Your task to perform on an android device: allow cookies in the chrome app Image 0: 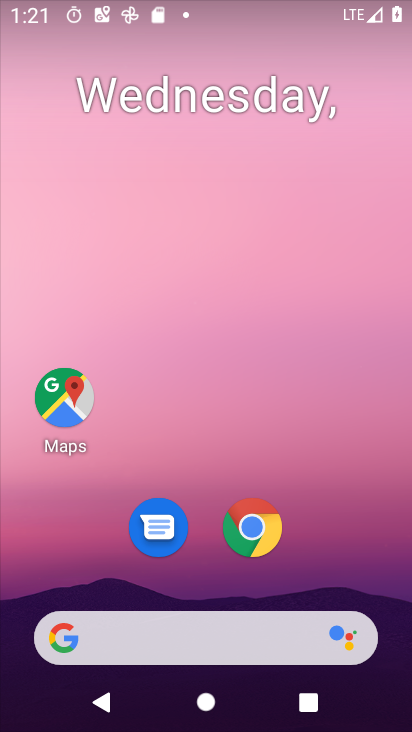
Step 0: drag from (295, 627) to (384, 0)
Your task to perform on an android device: allow cookies in the chrome app Image 1: 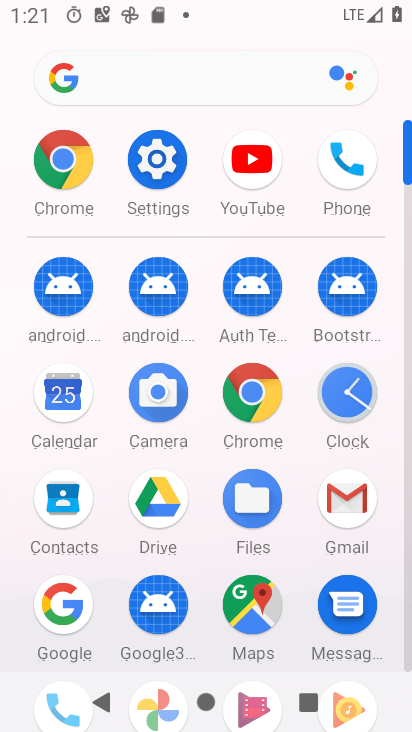
Step 1: click (266, 391)
Your task to perform on an android device: allow cookies in the chrome app Image 2: 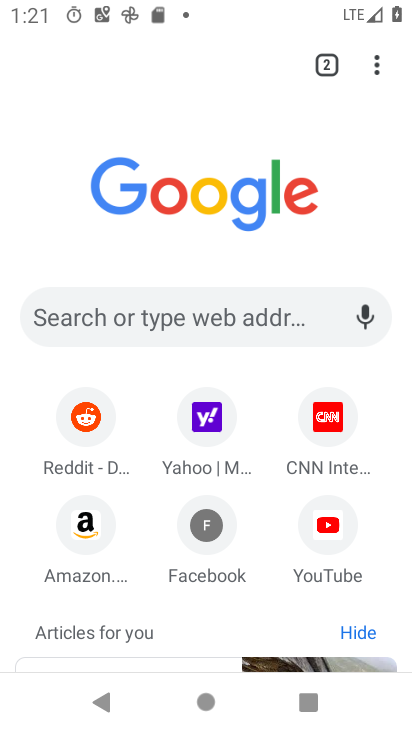
Step 2: drag from (377, 68) to (206, 556)
Your task to perform on an android device: allow cookies in the chrome app Image 3: 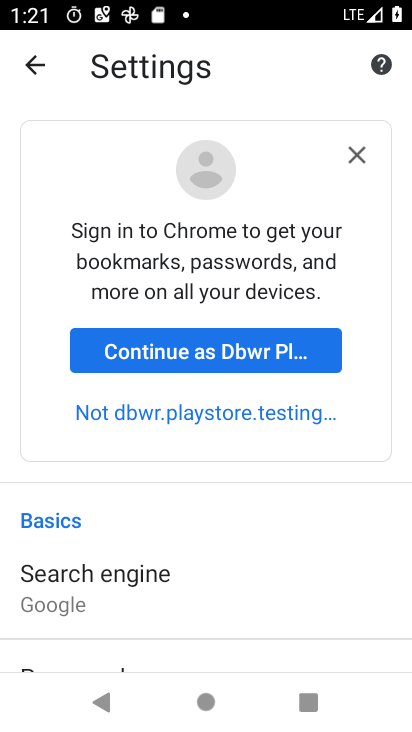
Step 3: drag from (148, 608) to (243, 29)
Your task to perform on an android device: allow cookies in the chrome app Image 4: 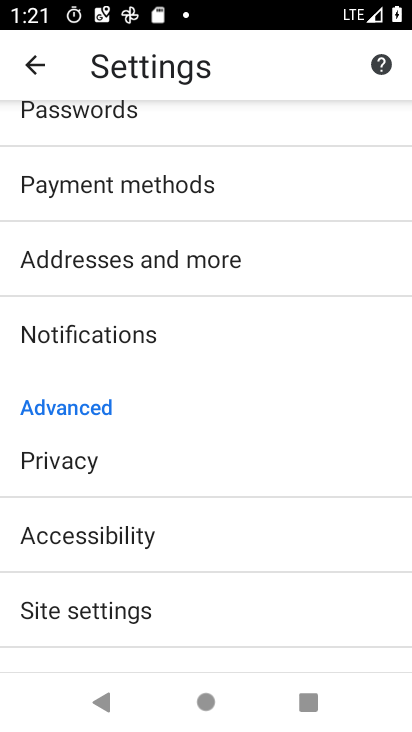
Step 4: click (169, 596)
Your task to perform on an android device: allow cookies in the chrome app Image 5: 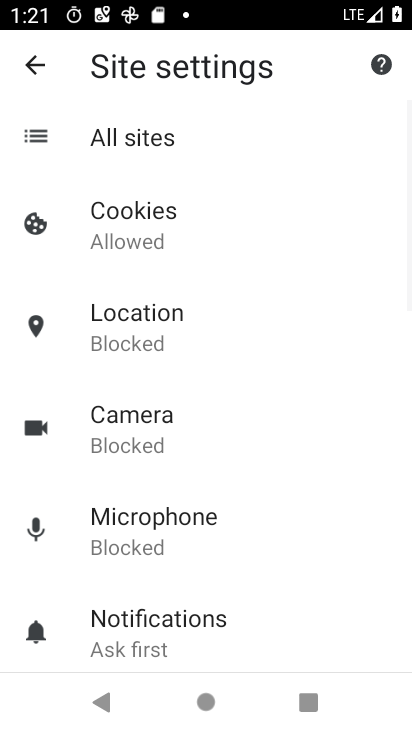
Step 5: click (171, 224)
Your task to perform on an android device: allow cookies in the chrome app Image 6: 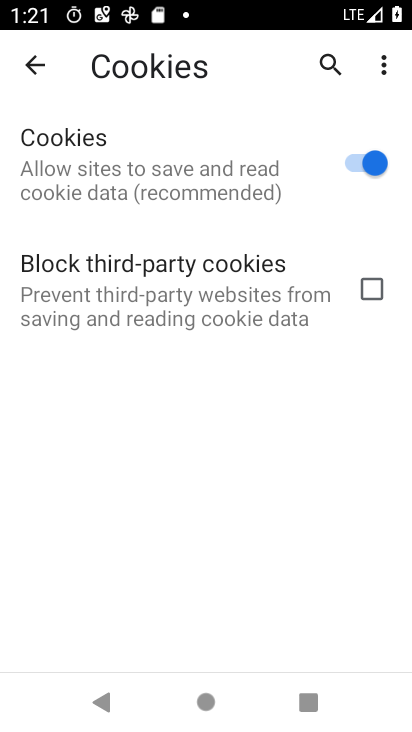
Step 6: task complete